Your task to perform on an android device: turn on location history Image 0: 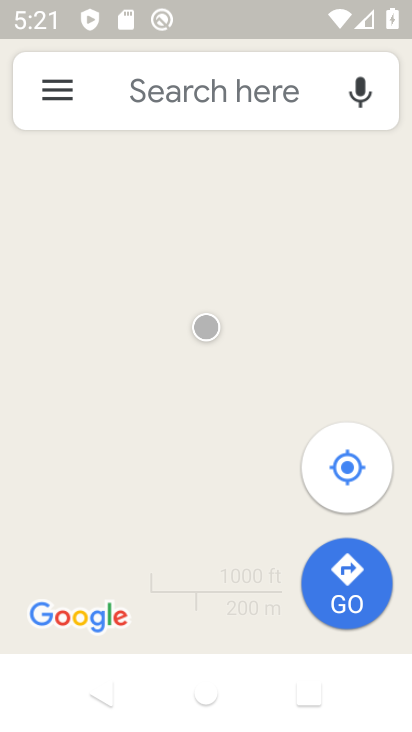
Step 0: press back button
Your task to perform on an android device: turn on location history Image 1: 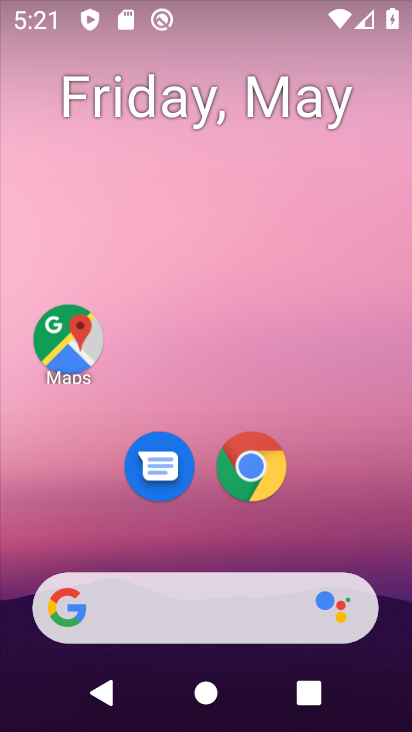
Step 1: drag from (321, 503) to (226, 17)
Your task to perform on an android device: turn on location history Image 2: 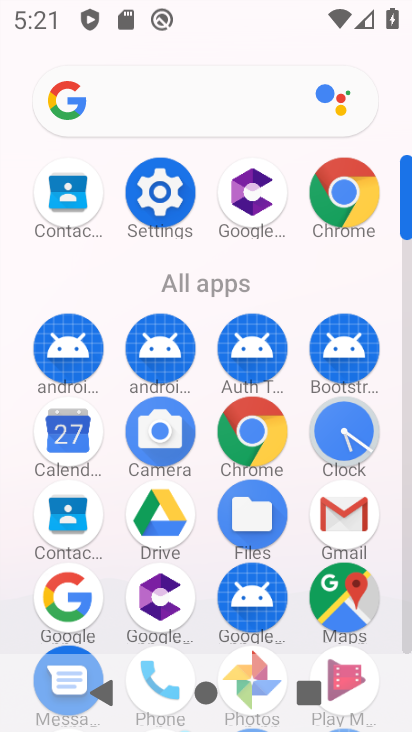
Step 2: click (157, 188)
Your task to perform on an android device: turn on location history Image 3: 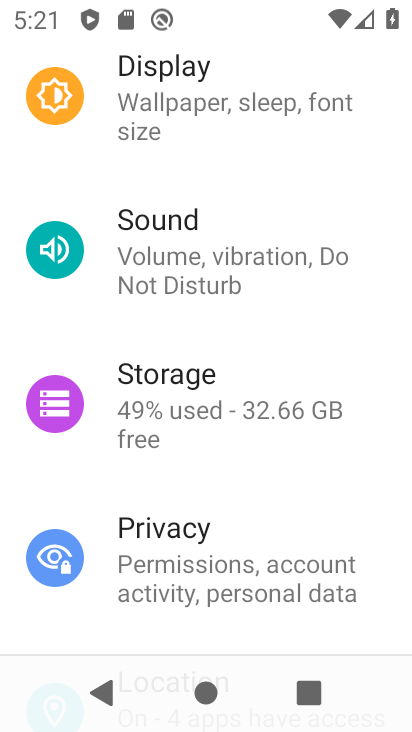
Step 3: drag from (273, 450) to (240, 100)
Your task to perform on an android device: turn on location history Image 4: 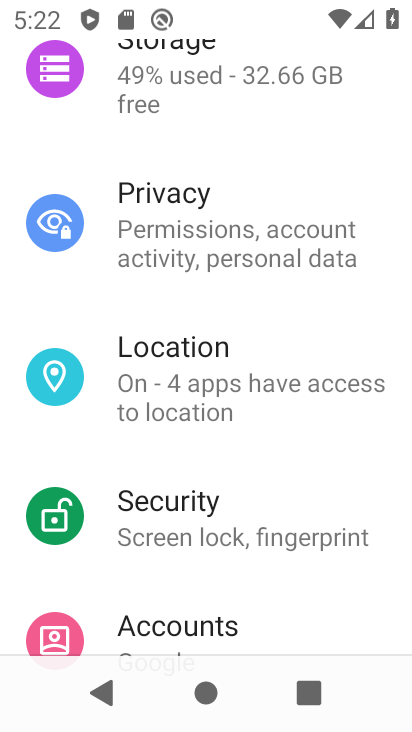
Step 4: click (222, 398)
Your task to perform on an android device: turn on location history Image 5: 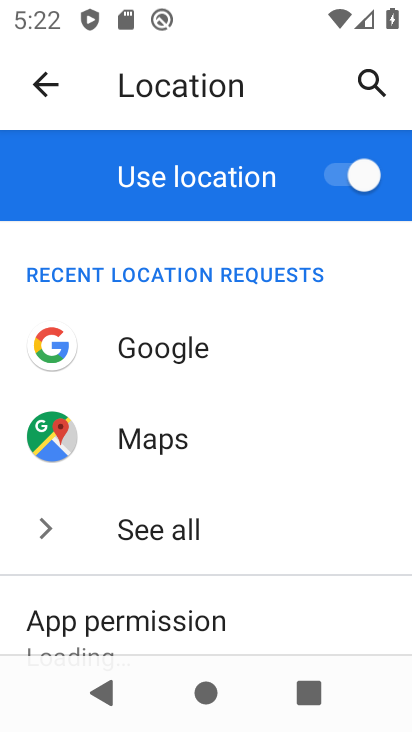
Step 5: drag from (245, 537) to (231, 124)
Your task to perform on an android device: turn on location history Image 6: 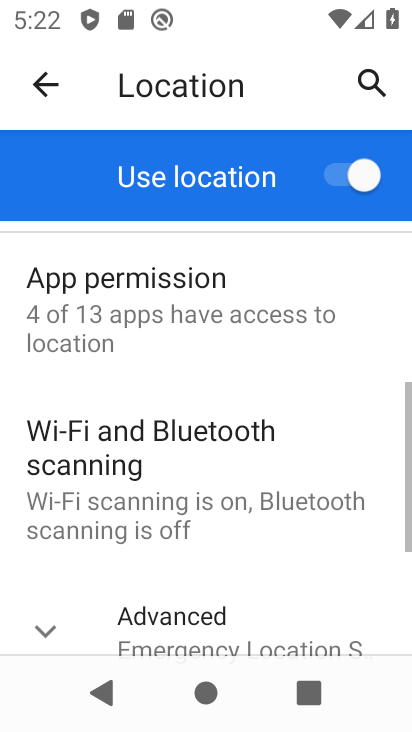
Step 6: click (51, 591)
Your task to perform on an android device: turn on location history Image 7: 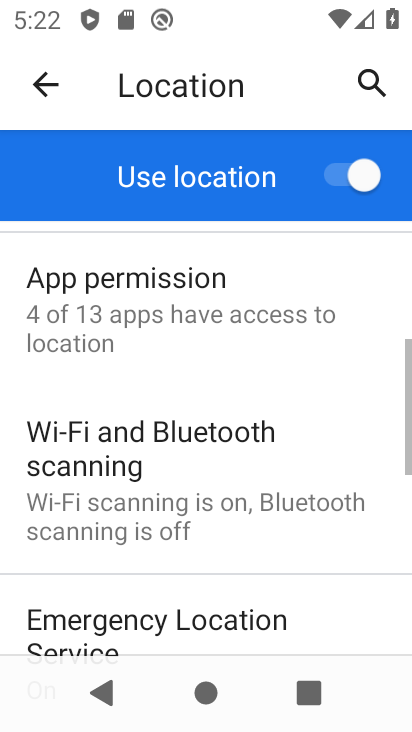
Step 7: drag from (315, 535) to (273, 166)
Your task to perform on an android device: turn on location history Image 8: 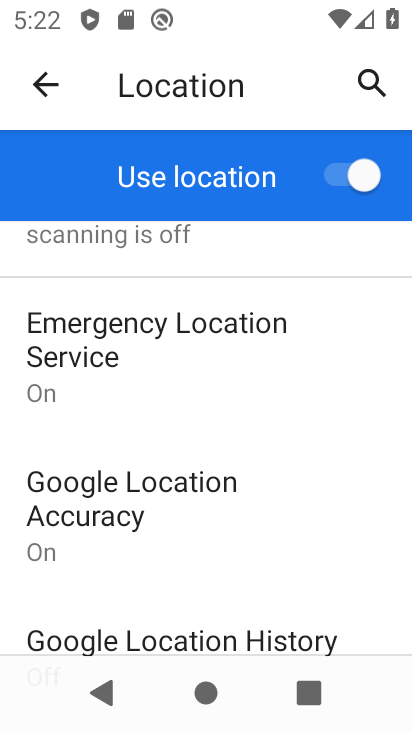
Step 8: drag from (218, 533) to (213, 229)
Your task to perform on an android device: turn on location history Image 9: 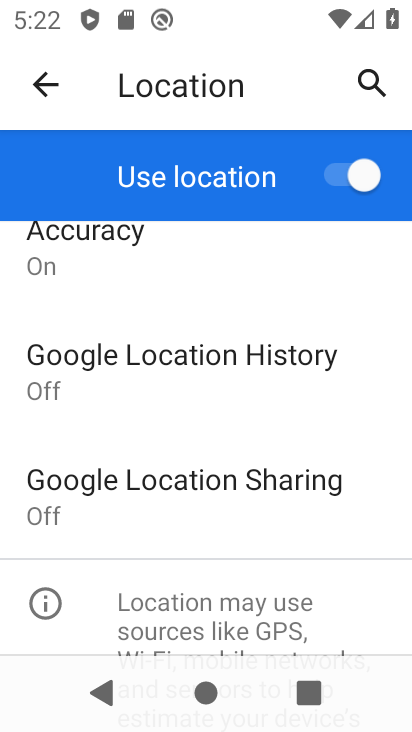
Step 9: click (193, 350)
Your task to perform on an android device: turn on location history Image 10: 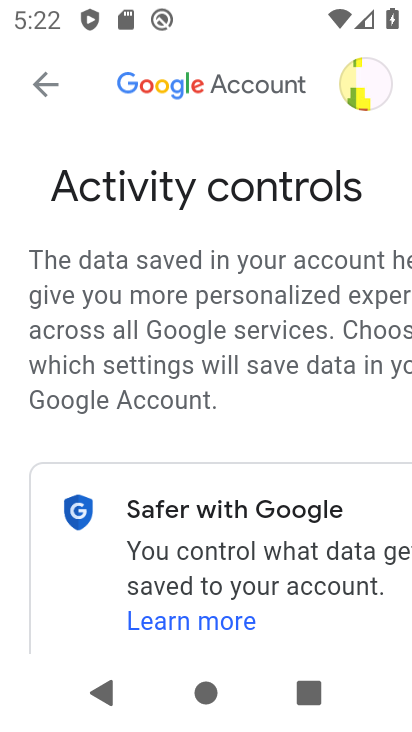
Step 10: drag from (138, 501) to (70, 114)
Your task to perform on an android device: turn on location history Image 11: 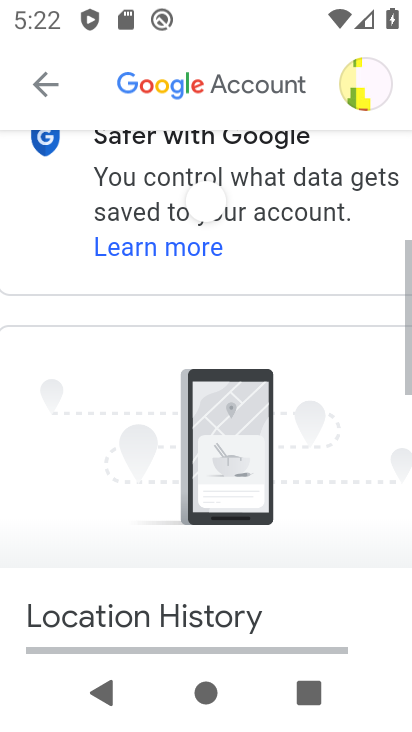
Step 11: drag from (138, 567) to (64, 167)
Your task to perform on an android device: turn on location history Image 12: 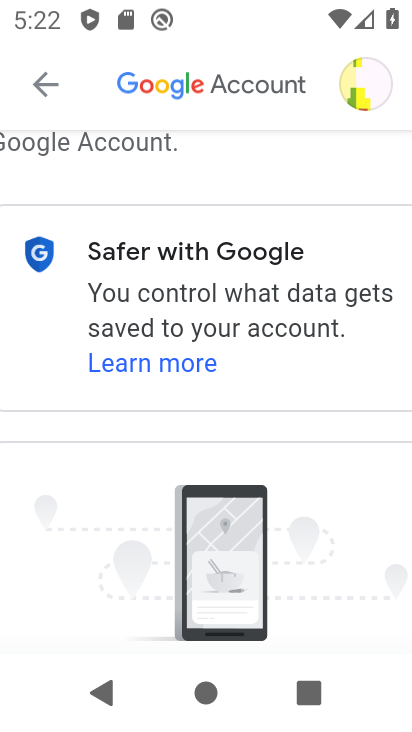
Step 12: drag from (205, 549) to (225, 192)
Your task to perform on an android device: turn on location history Image 13: 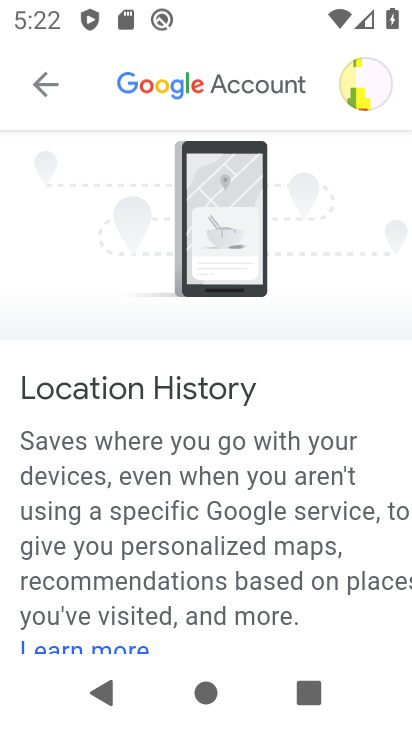
Step 13: drag from (234, 562) to (286, 182)
Your task to perform on an android device: turn on location history Image 14: 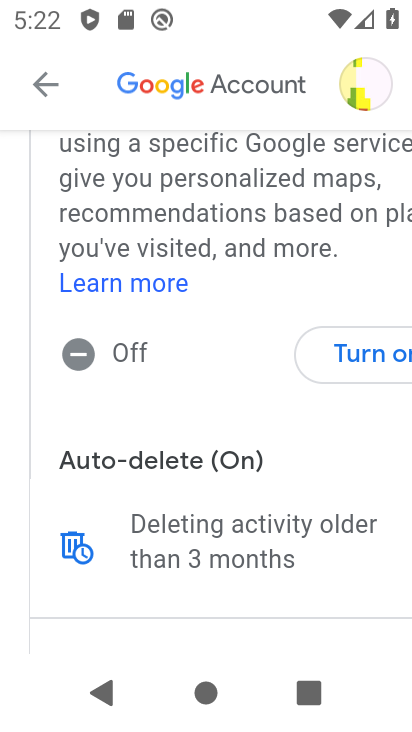
Step 14: click (333, 354)
Your task to perform on an android device: turn on location history Image 15: 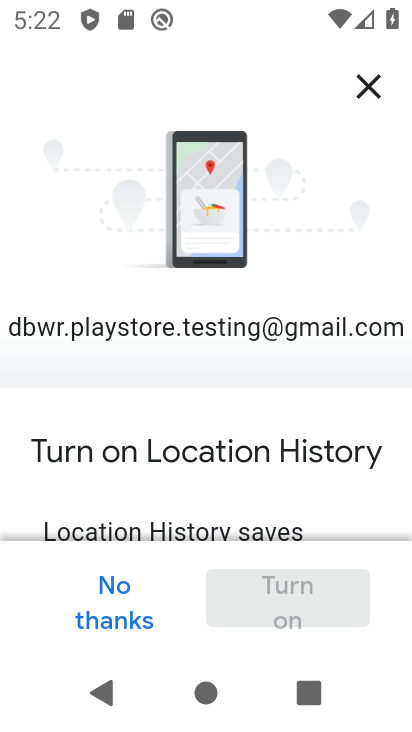
Step 15: drag from (193, 464) to (137, 40)
Your task to perform on an android device: turn on location history Image 16: 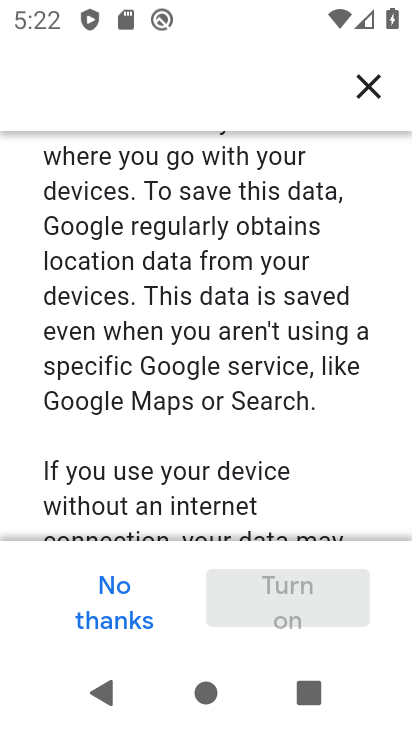
Step 16: drag from (137, 438) to (134, 92)
Your task to perform on an android device: turn on location history Image 17: 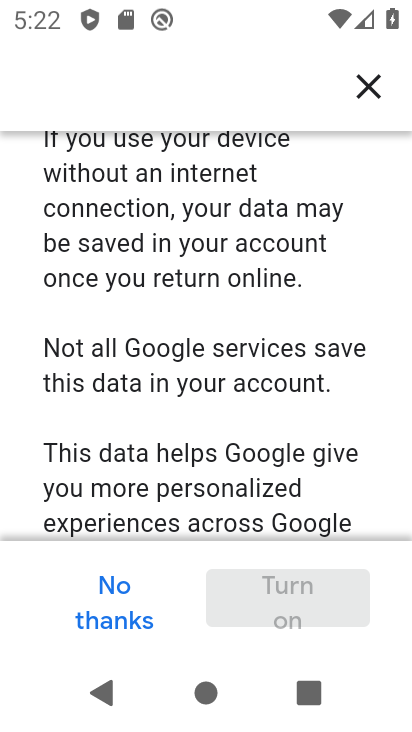
Step 17: drag from (168, 467) to (186, 127)
Your task to perform on an android device: turn on location history Image 18: 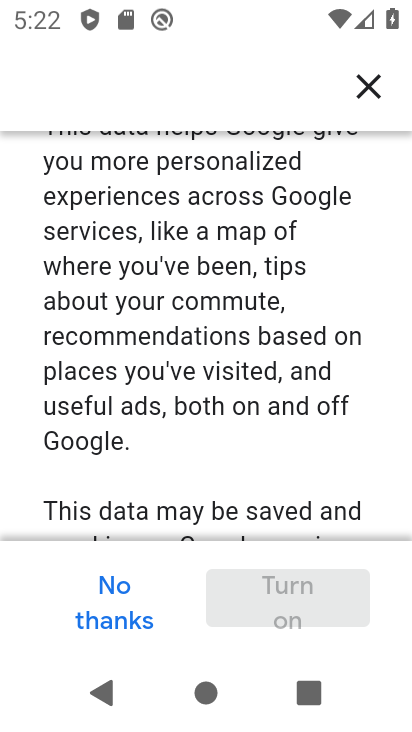
Step 18: drag from (186, 445) to (201, 107)
Your task to perform on an android device: turn on location history Image 19: 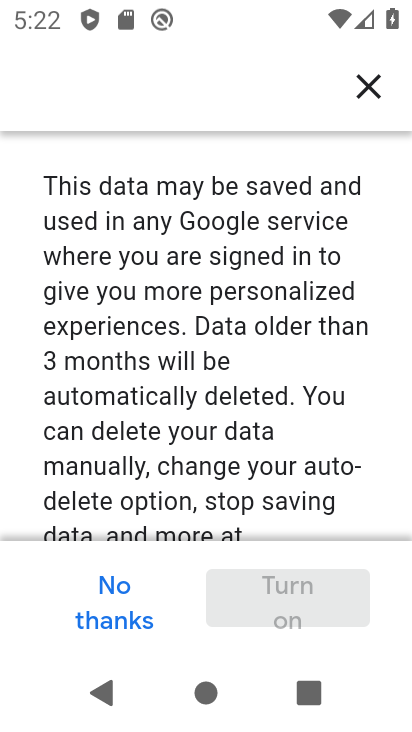
Step 19: drag from (177, 440) to (215, 120)
Your task to perform on an android device: turn on location history Image 20: 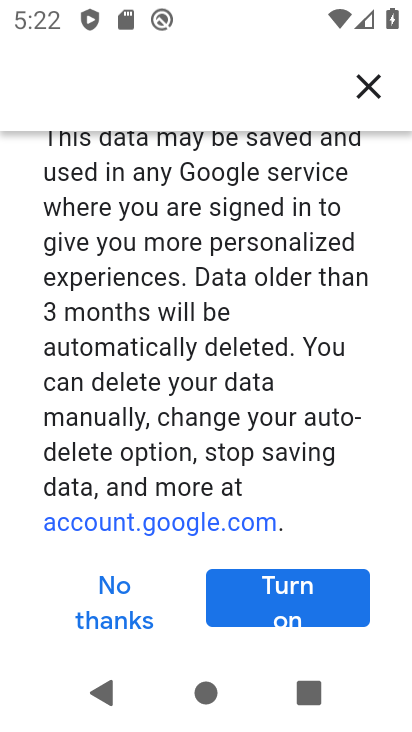
Step 20: click (274, 610)
Your task to perform on an android device: turn on location history Image 21: 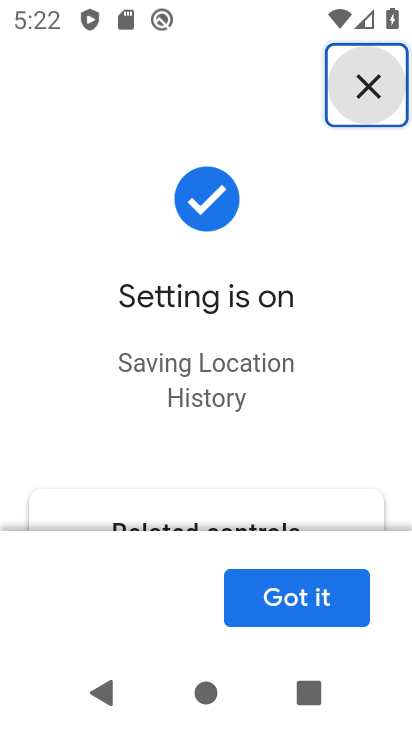
Step 21: task complete